Your task to perform on an android device: open device folders in google photos Image 0: 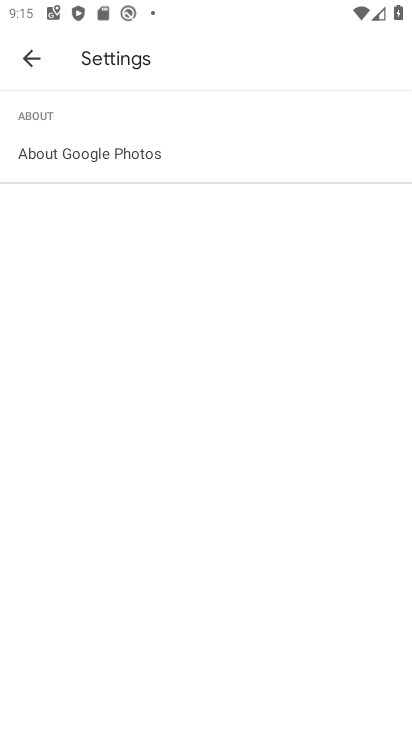
Step 0: drag from (220, 14) to (220, 339)
Your task to perform on an android device: open device folders in google photos Image 1: 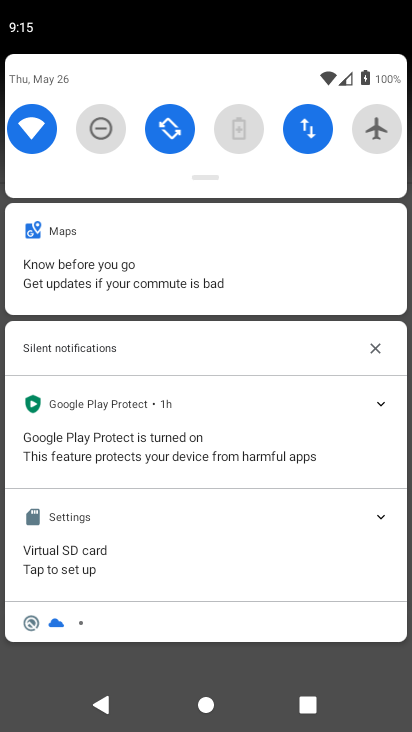
Step 1: press home button
Your task to perform on an android device: open device folders in google photos Image 2: 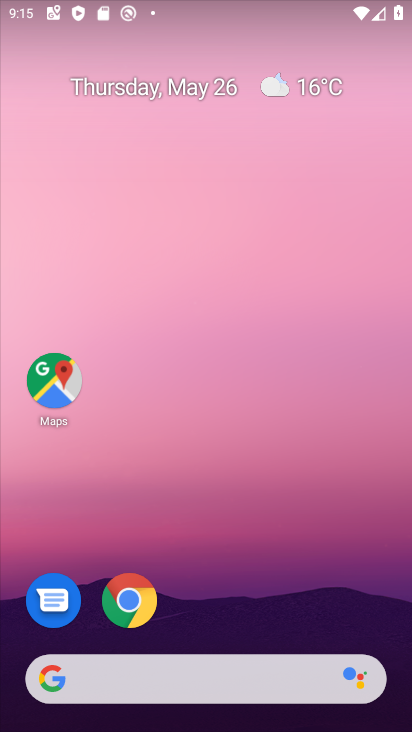
Step 2: drag from (221, 643) to (234, 76)
Your task to perform on an android device: open device folders in google photos Image 3: 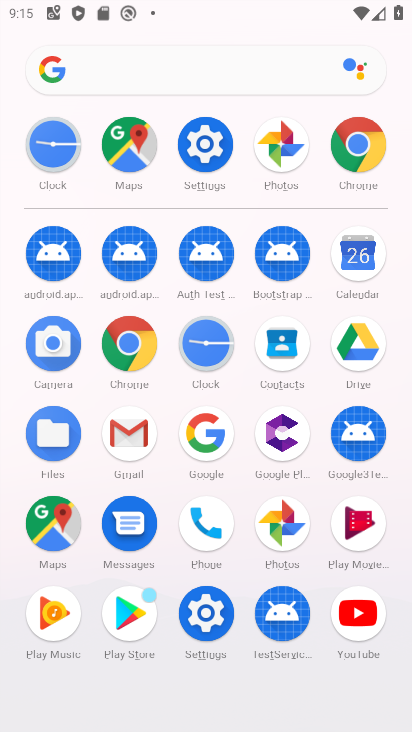
Step 3: click (278, 532)
Your task to perform on an android device: open device folders in google photos Image 4: 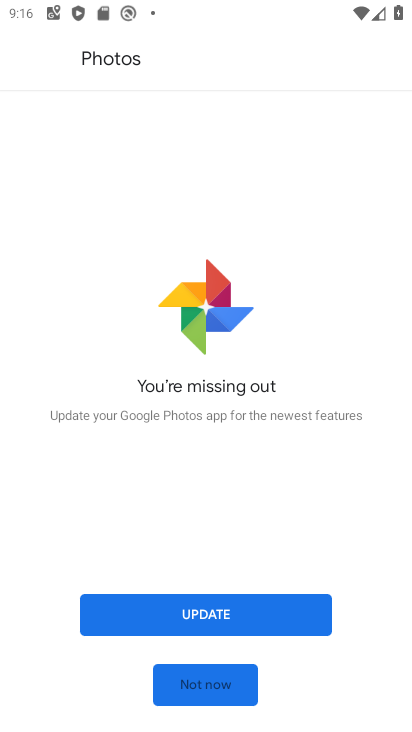
Step 4: click (219, 702)
Your task to perform on an android device: open device folders in google photos Image 5: 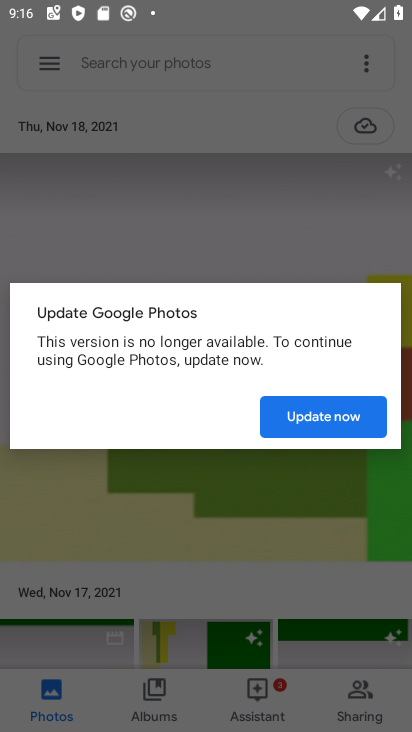
Step 5: click (301, 421)
Your task to perform on an android device: open device folders in google photos Image 6: 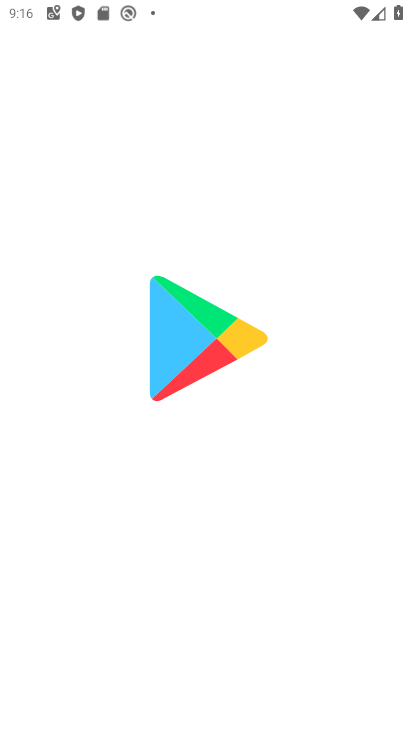
Step 6: click (55, 59)
Your task to perform on an android device: open device folders in google photos Image 7: 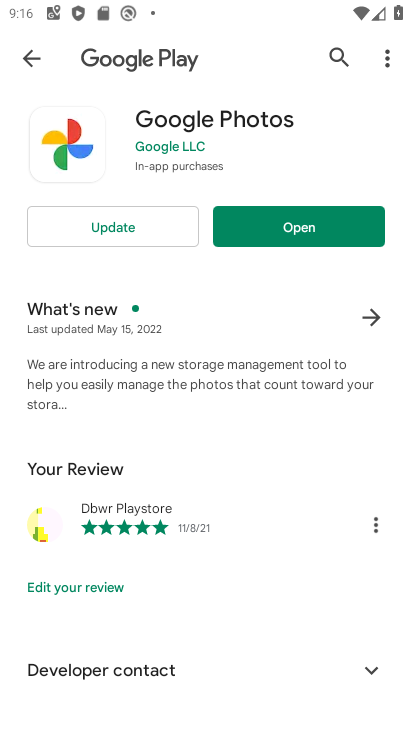
Step 7: click (279, 219)
Your task to perform on an android device: open device folders in google photos Image 8: 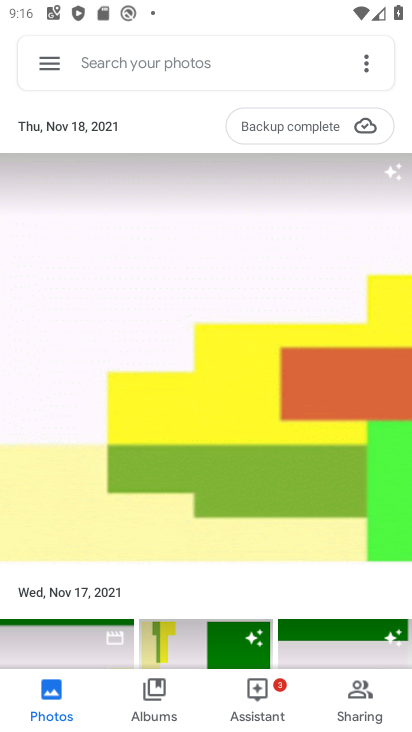
Step 8: click (58, 66)
Your task to perform on an android device: open device folders in google photos Image 9: 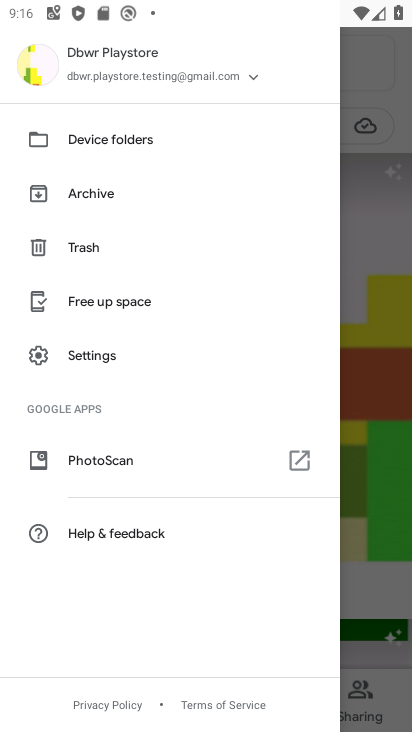
Step 9: click (86, 147)
Your task to perform on an android device: open device folders in google photos Image 10: 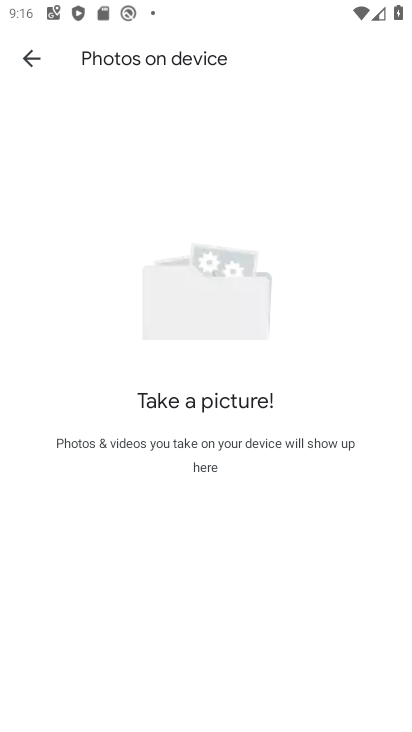
Step 10: task complete